Your task to perform on an android device: Go to location settings Image 0: 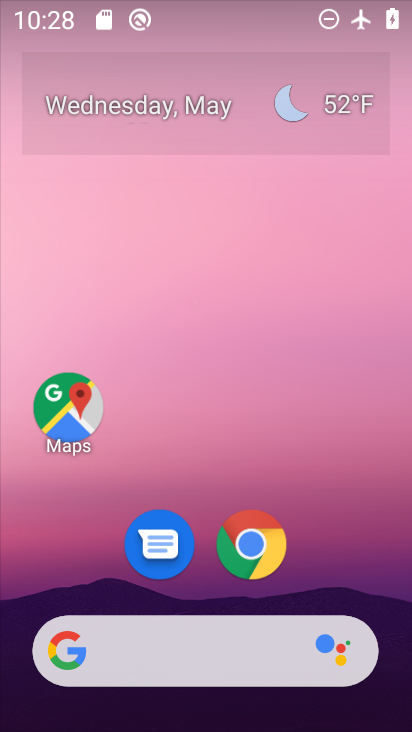
Step 0: click (87, 417)
Your task to perform on an android device: Go to location settings Image 1: 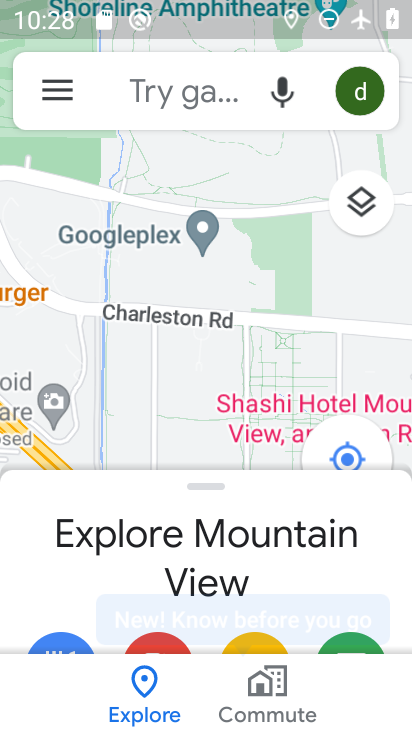
Step 1: click (54, 77)
Your task to perform on an android device: Go to location settings Image 2: 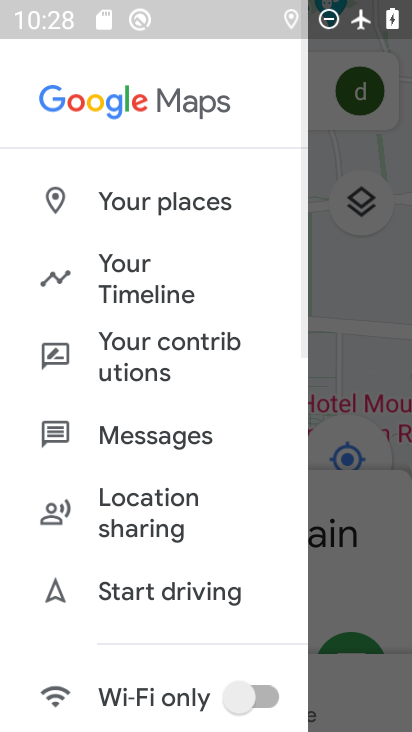
Step 2: drag from (137, 610) to (187, 106)
Your task to perform on an android device: Go to location settings Image 3: 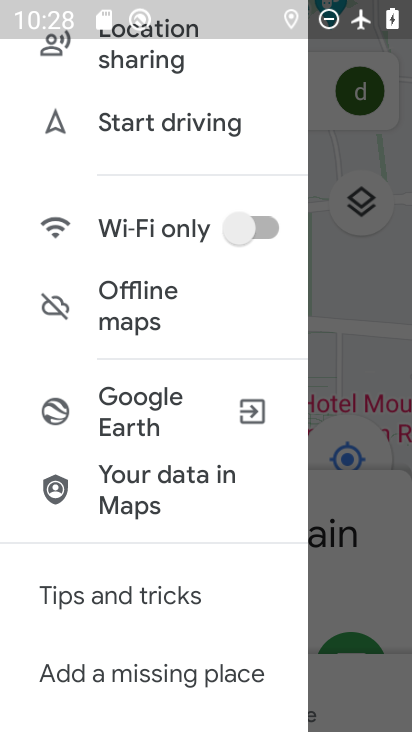
Step 3: drag from (197, 574) to (237, 252)
Your task to perform on an android device: Go to location settings Image 4: 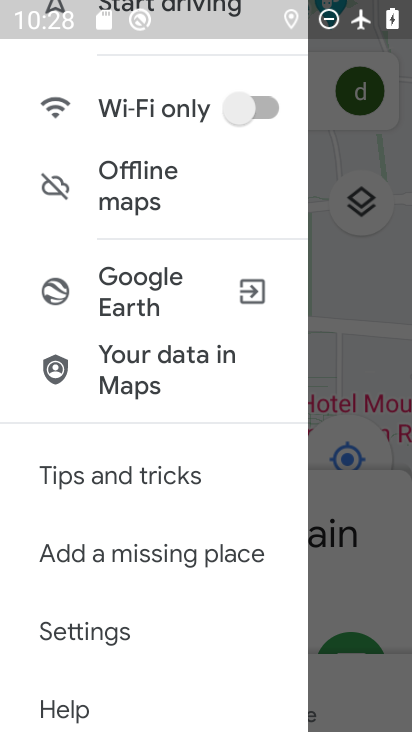
Step 4: click (137, 629)
Your task to perform on an android device: Go to location settings Image 5: 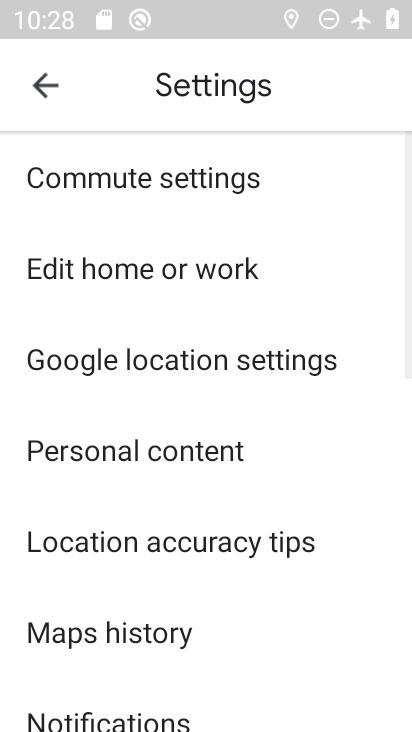
Step 5: task complete